Your task to perform on an android device: Play the last video I watched on Youtube Image 0: 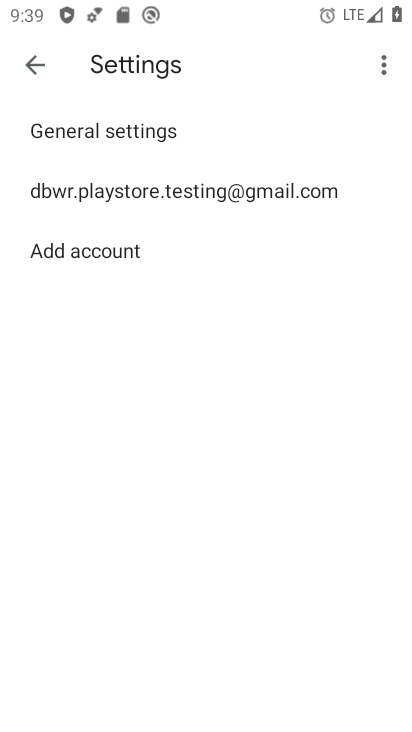
Step 0: drag from (372, 587) to (411, 534)
Your task to perform on an android device: Play the last video I watched on Youtube Image 1: 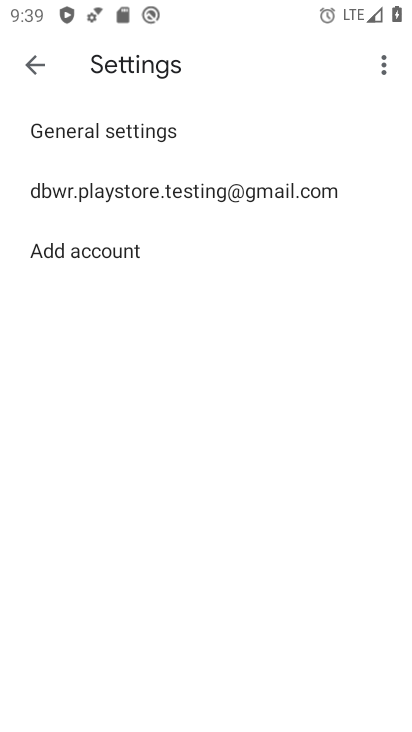
Step 1: press home button
Your task to perform on an android device: Play the last video I watched on Youtube Image 2: 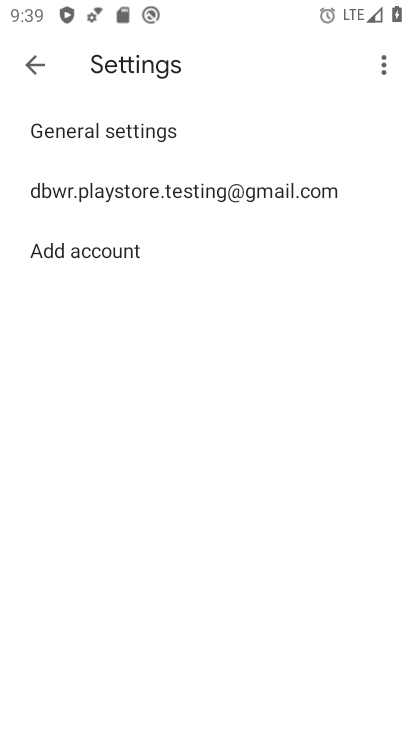
Step 2: drag from (411, 534) to (411, 500)
Your task to perform on an android device: Play the last video I watched on Youtube Image 3: 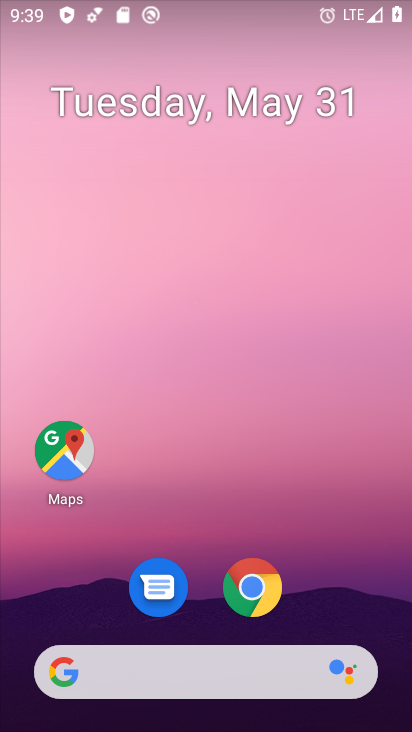
Step 3: drag from (351, 538) to (371, 131)
Your task to perform on an android device: Play the last video I watched on Youtube Image 4: 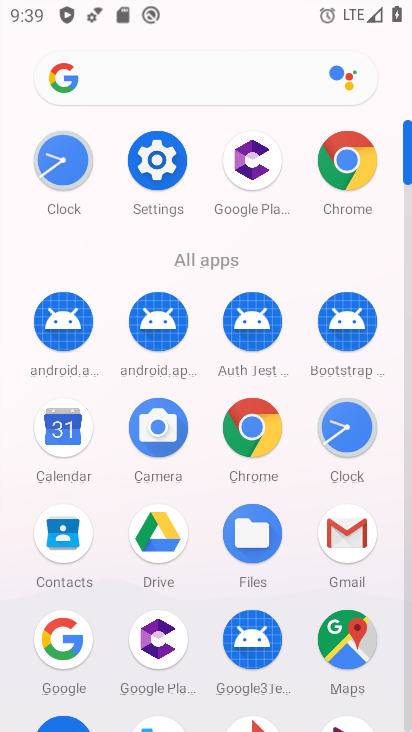
Step 4: drag from (199, 498) to (207, 200)
Your task to perform on an android device: Play the last video I watched on Youtube Image 5: 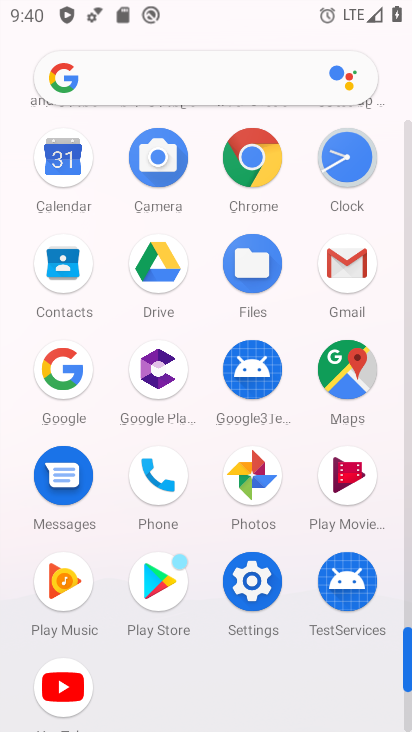
Step 5: click (62, 690)
Your task to perform on an android device: Play the last video I watched on Youtube Image 6: 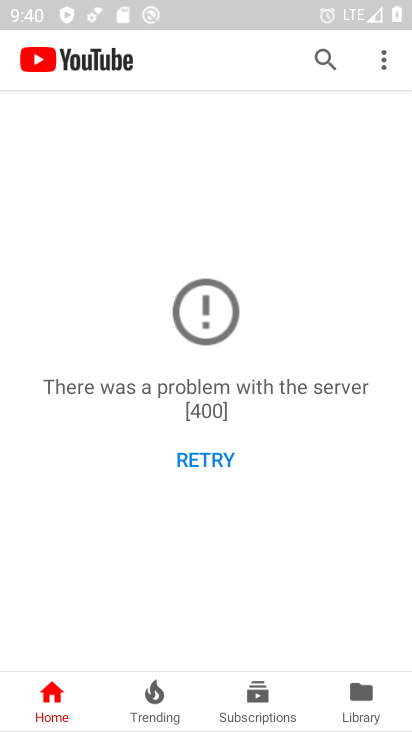
Step 6: click (358, 678)
Your task to perform on an android device: Play the last video I watched on Youtube Image 7: 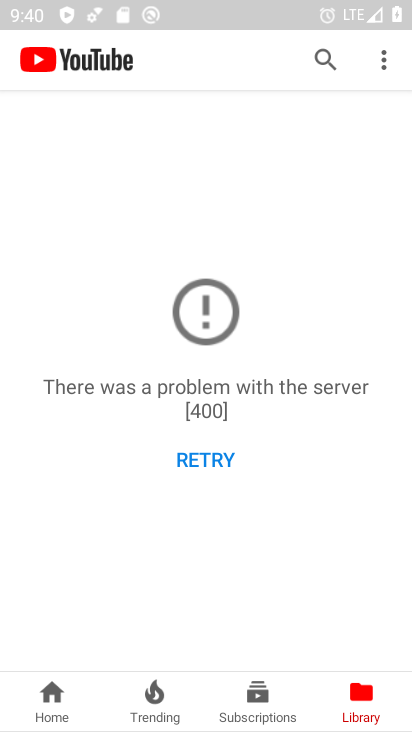
Step 7: task complete